Your task to perform on an android device: Search for "apple airpods pro" on amazon.com, select the first entry, add it to the cart, then select checkout. Image 0: 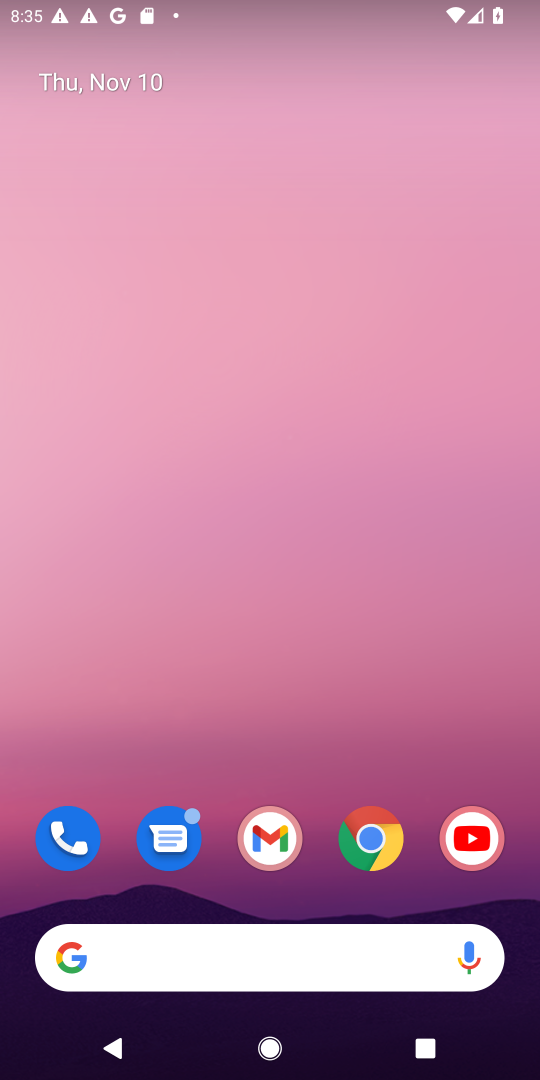
Step 0: drag from (328, 622) to (358, 31)
Your task to perform on an android device: Search for "apple airpods pro" on amazon.com, select the first entry, add it to the cart, then select checkout. Image 1: 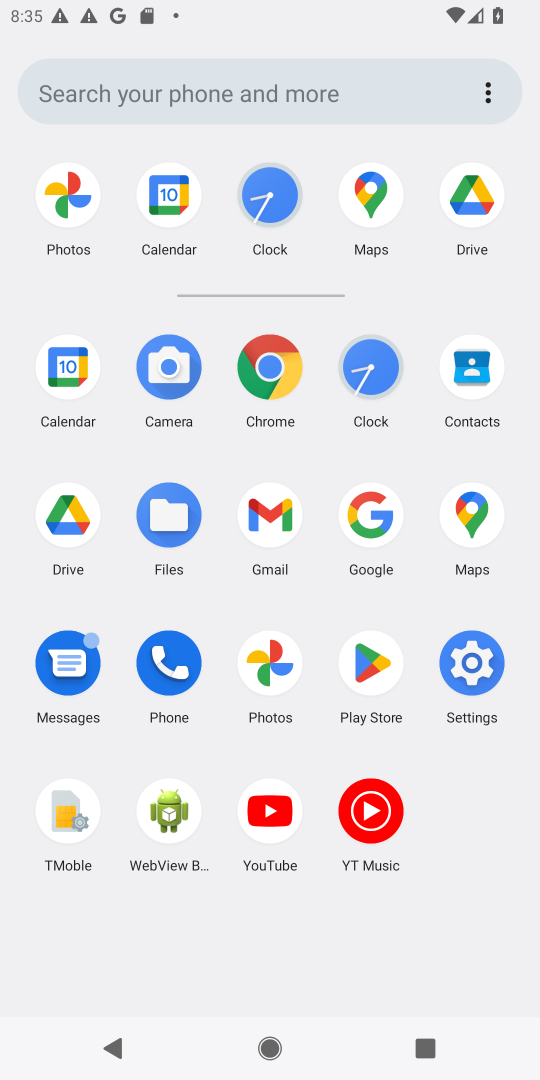
Step 1: click (270, 371)
Your task to perform on an android device: Search for "apple airpods pro" on amazon.com, select the first entry, add it to the cart, then select checkout. Image 2: 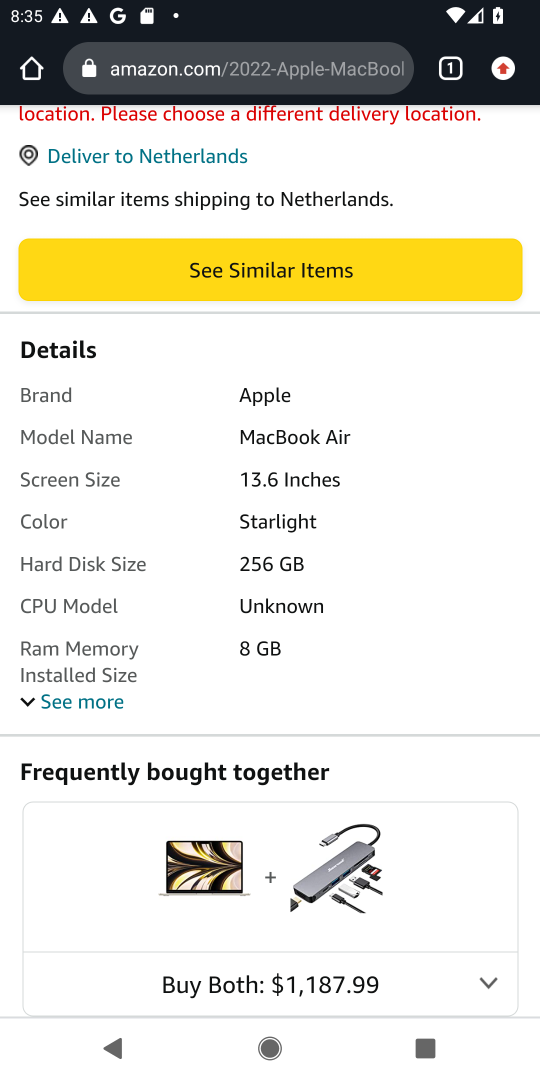
Step 2: click (312, 75)
Your task to perform on an android device: Search for "apple airpods pro" on amazon.com, select the first entry, add it to the cart, then select checkout. Image 3: 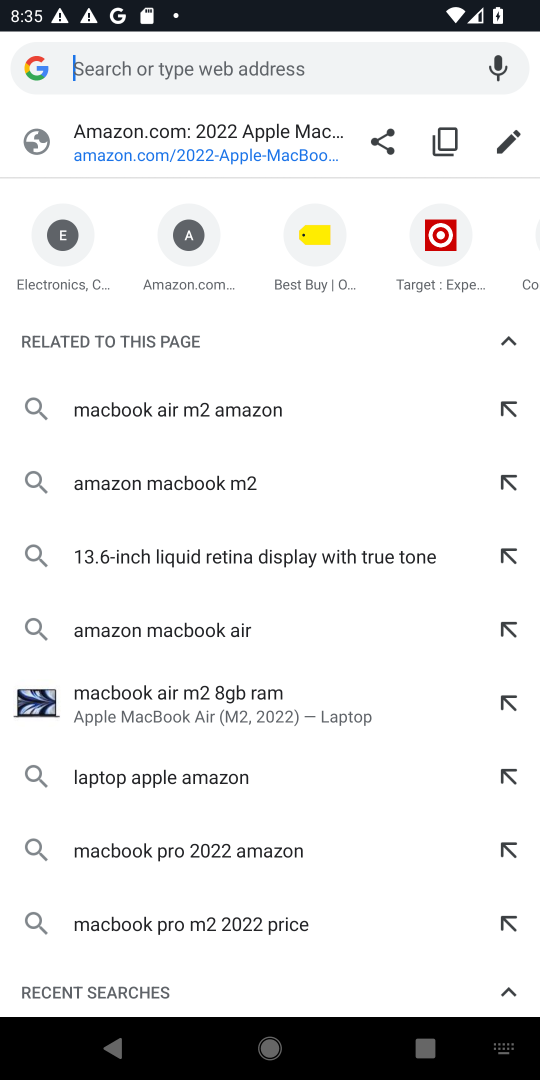
Step 3: type "amazon.com"
Your task to perform on an android device: Search for "apple airpods pro" on amazon.com, select the first entry, add it to the cart, then select checkout. Image 4: 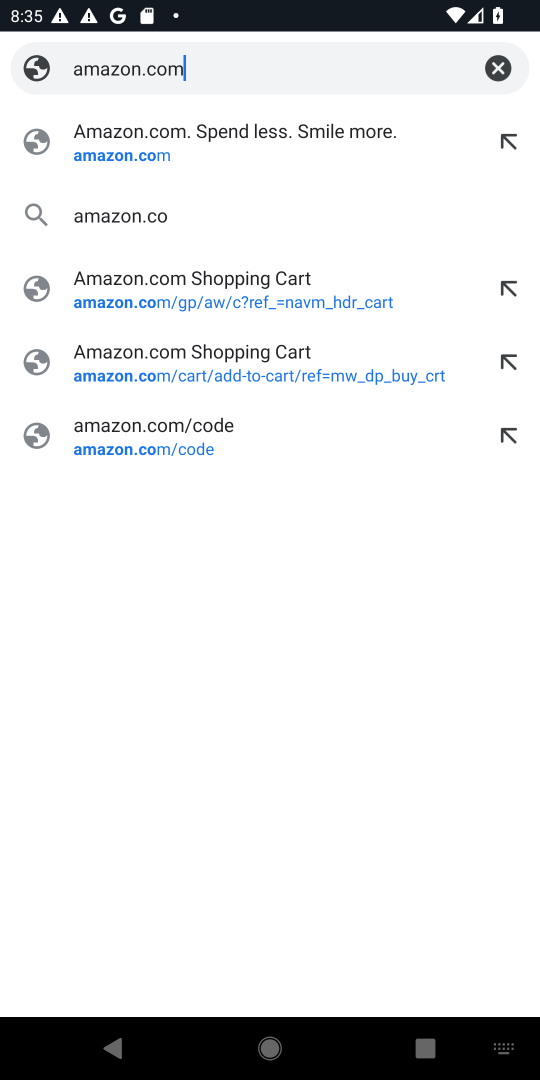
Step 4: press enter
Your task to perform on an android device: Search for "apple airpods pro" on amazon.com, select the first entry, add it to the cart, then select checkout. Image 5: 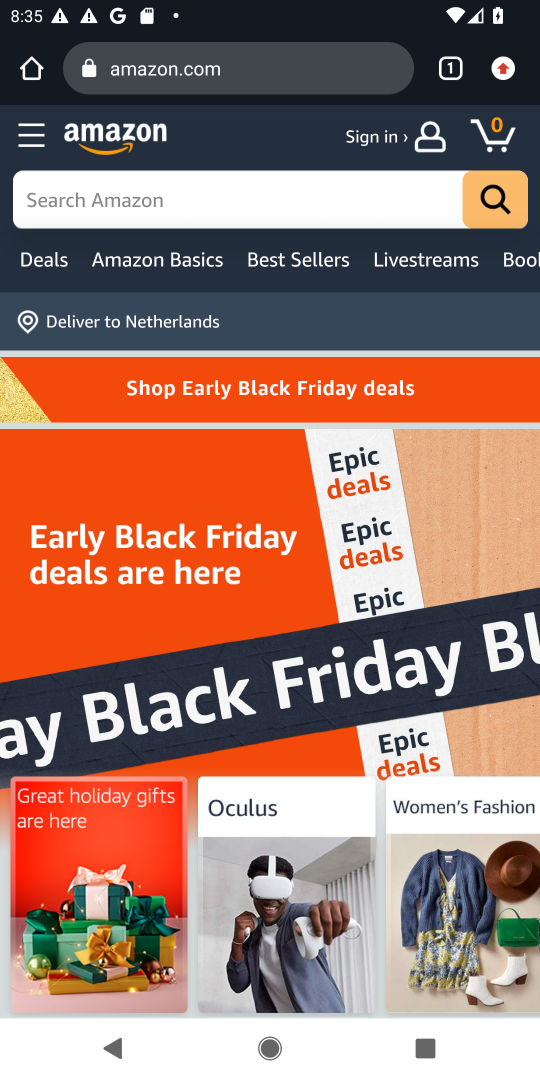
Step 5: click (331, 205)
Your task to perform on an android device: Search for "apple airpods pro" on amazon.com, select the first entry, add it to the cart, then select checkout. Image 6: 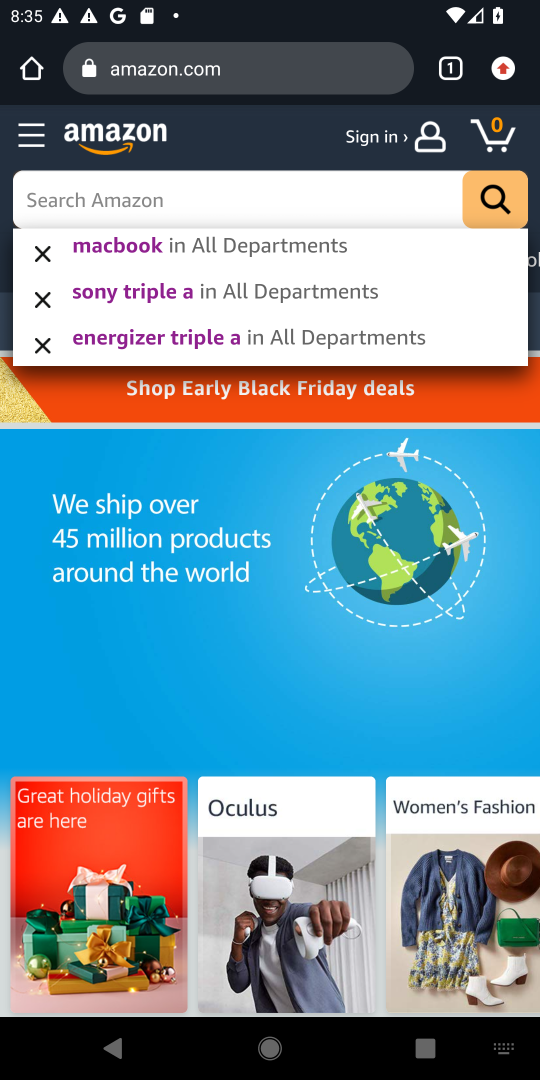
Step 6: type "apple airpods pro"
Your task to perform on an android device: Search for "apple airpods pro" on amazon.com, select the first entry, add it to the cart, then select checkout. Image 7: 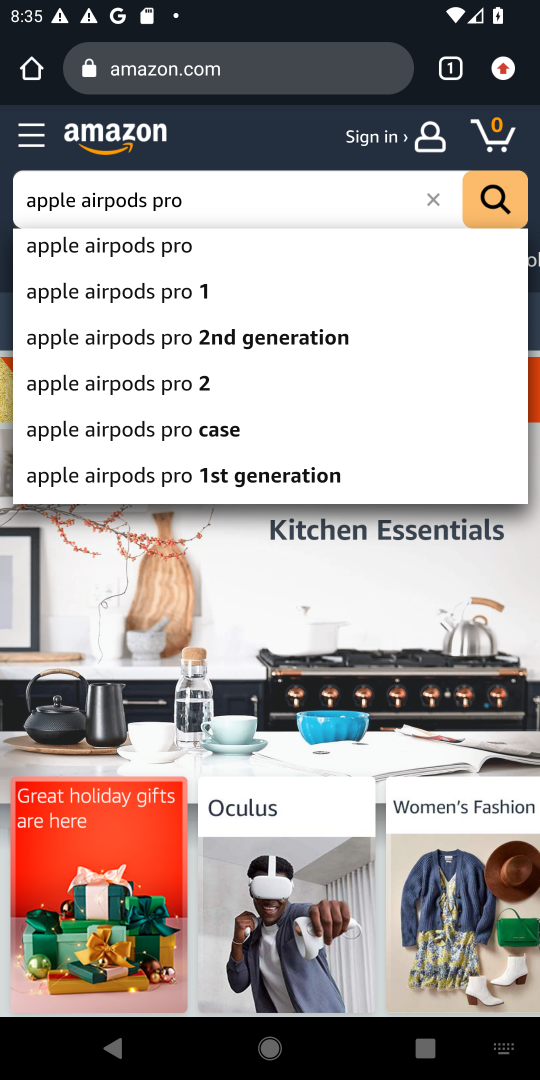
Step 7: press enter
Your task to perform on an android device: Search for "apple airpods pro" on amazon.com, select the first entry, add it to the cart, then select checkout. Image 8: 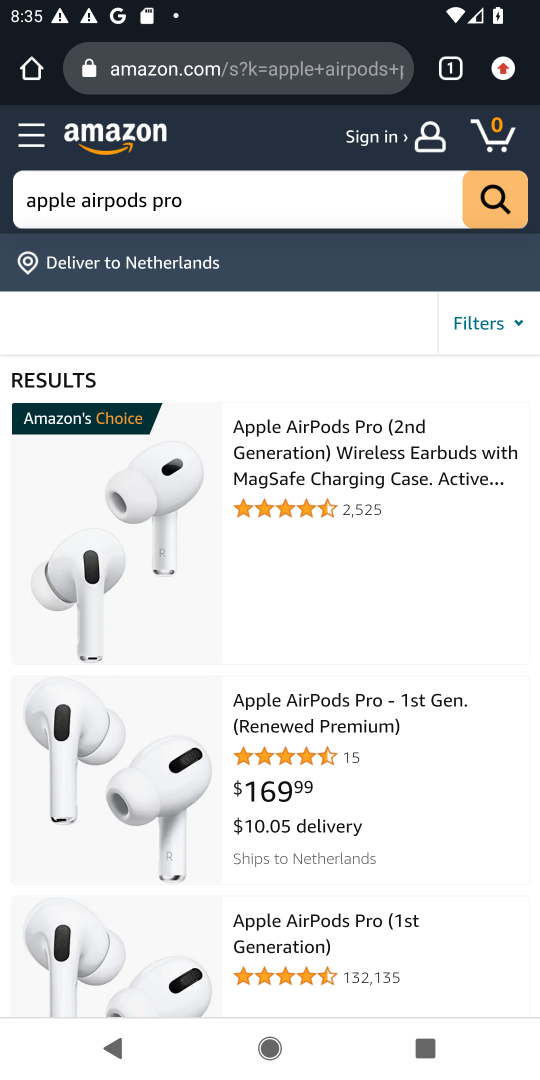
Step 8: click (395, 461)
Your task to perform on an android device: Search for "apple airpods pro" on amazon.com, select the first entry, add it to the cart, then select checkout. Image 9: 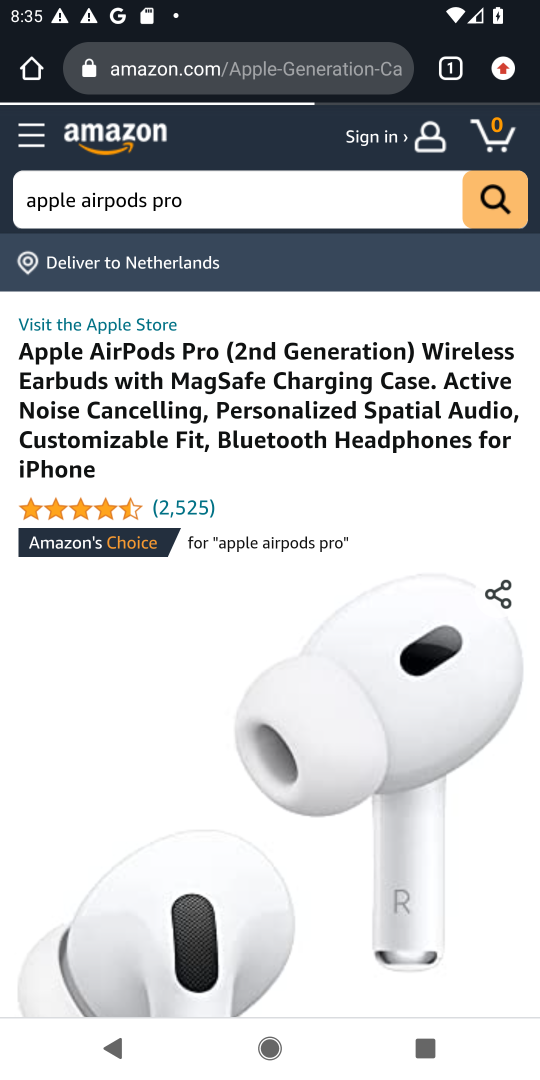
Step 9: task complete